Your task to perform on an android device: star an email in the gmail app Image 0: 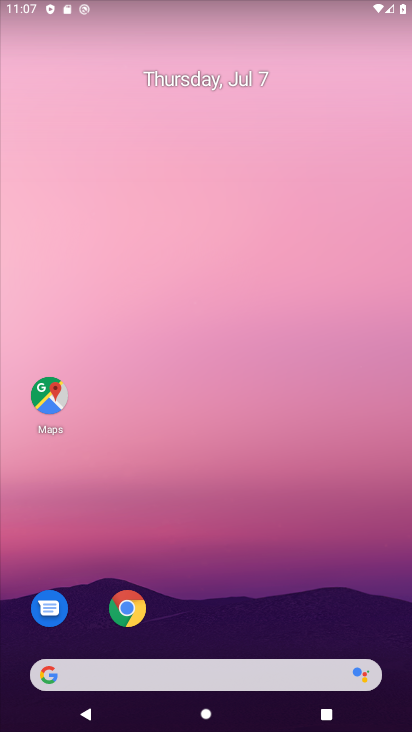
Step 0: drag from (208, 603) to (214, 1)
Your task to perform on an android device: star an email in the gmail app Image 1: 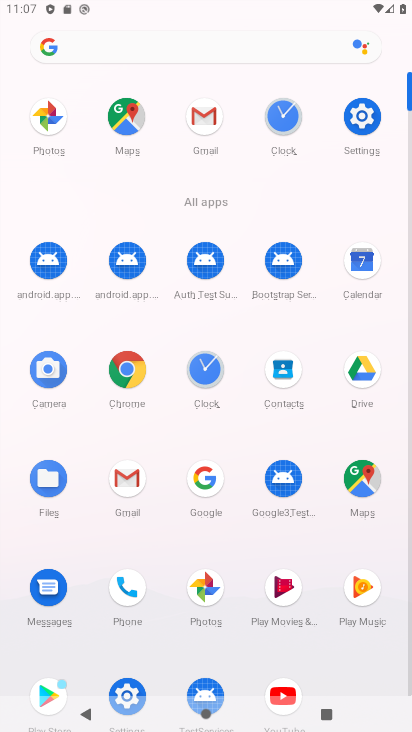
Step 1: click (135, 485)
Your task to perform on an android device: star an email in the gmail app Image 2: 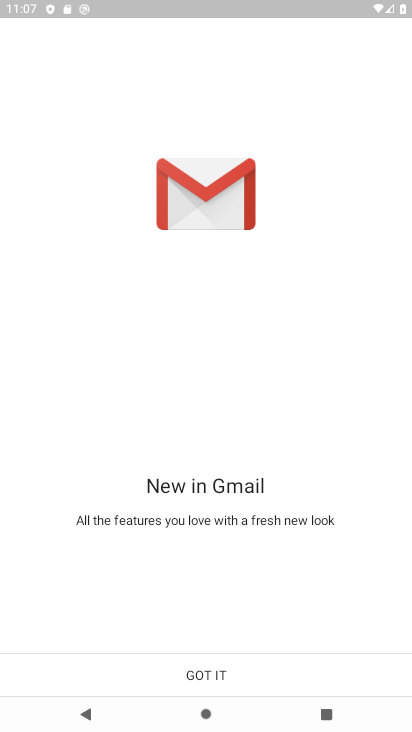
Step 2: click (218, 673)
Your task to perform on an android device: star an email in the gmail app Image 3: 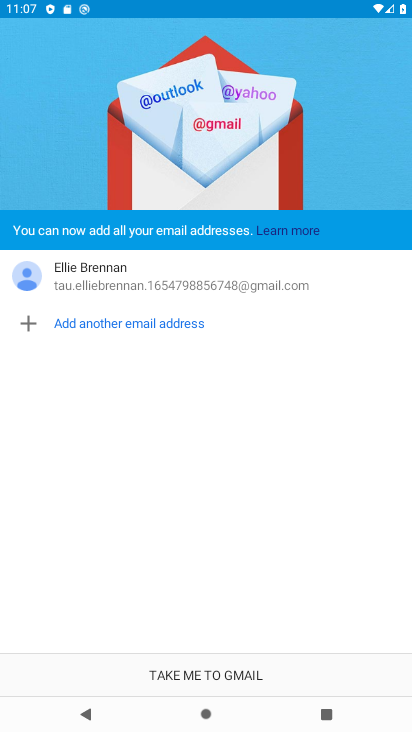
Step 3: click (216, 673)
Your task to perform on an android device: star an email in the gmail app Image 4: 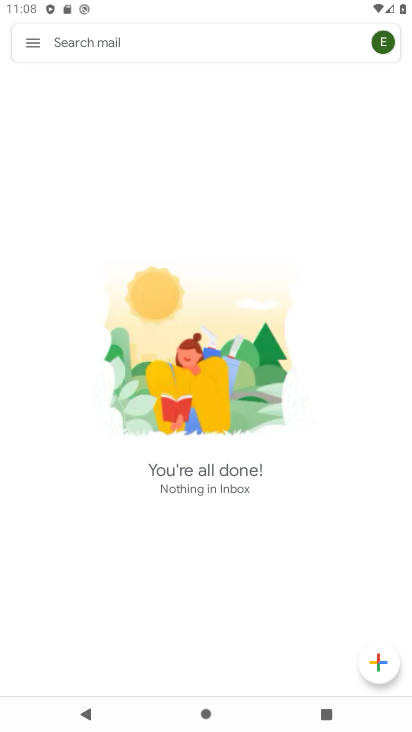
Step 4: task complete